Your task to perform on an android device: turn off notifications in google photos Image 0: 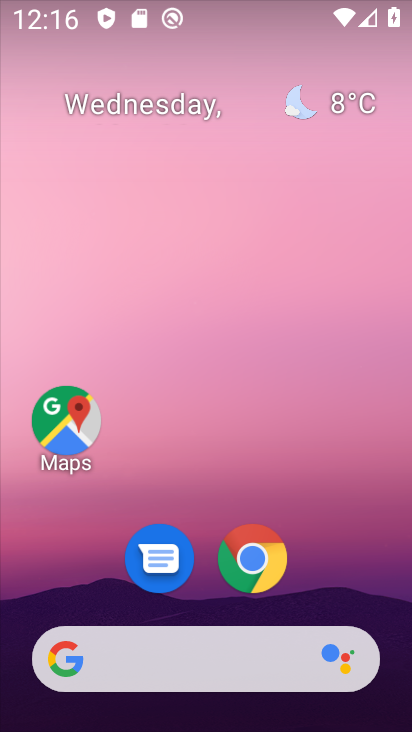
Step 0: drag from (335, 576) to (244, 6)
Your task to perform on an android device: turn off notifications in google photos Image 1: 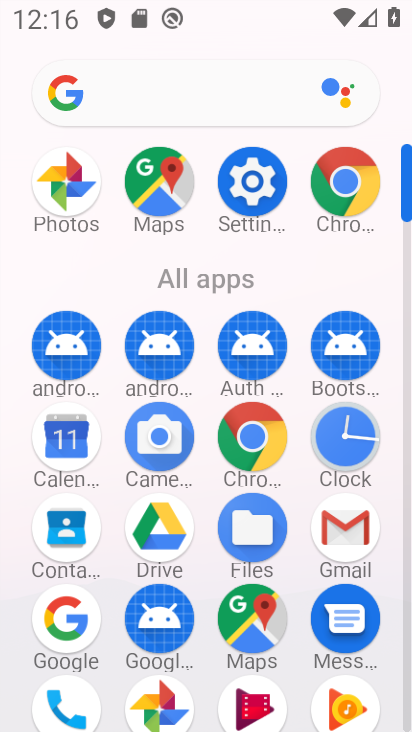
Step 1: drag from (7, 536) to (13, 207)
Your task to perform on an android device: turn off notifications in google photos Image 2: 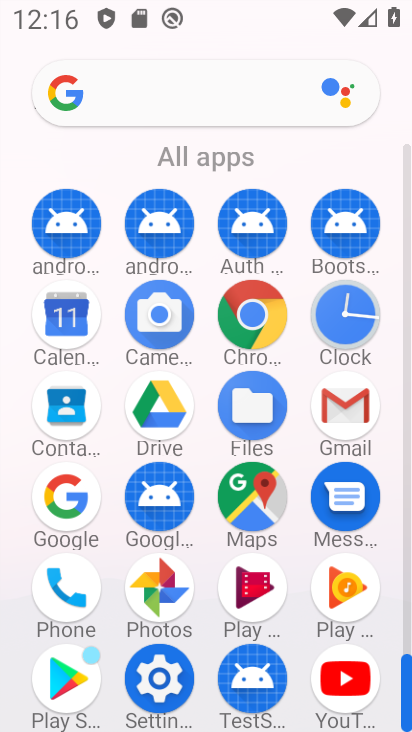
Step 2: click (157, 585)
Your task to perform on an android device: turn off notifications in google photos Image 3: 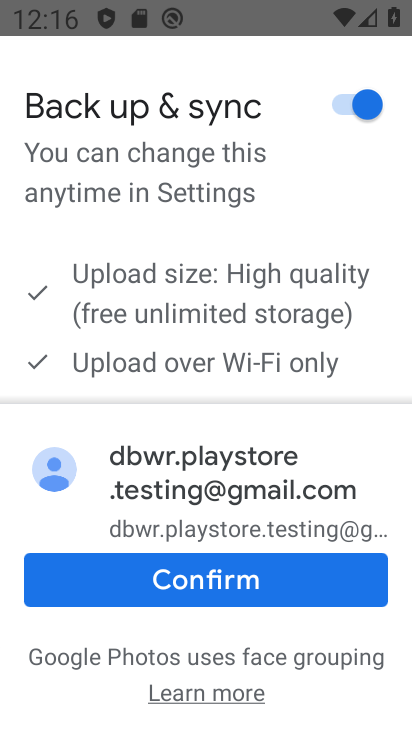
Step 3: click (214, 590)
Your task to perform on an android device: turn off notifications in google photos Image 4: 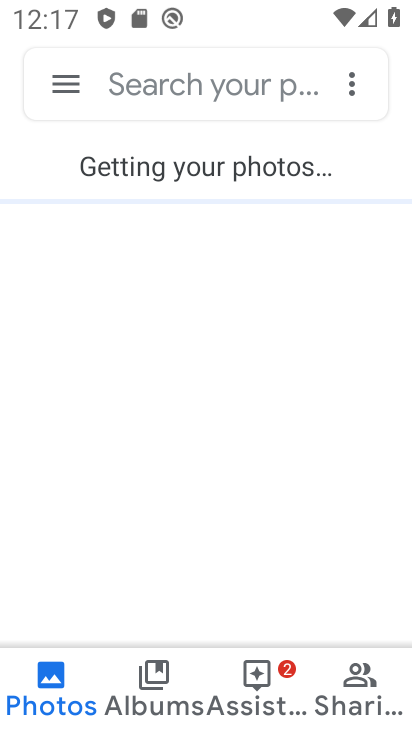
Step 4: click (46, 68)
Your task to perform on an android device: turn off notifications in google photos Image 5: 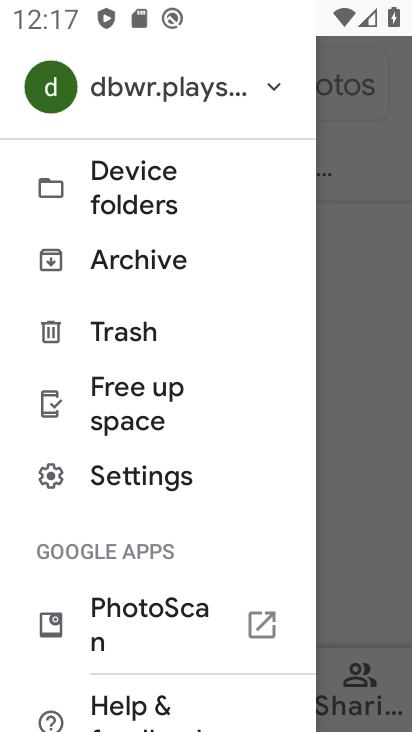
Step 5: click (146, 476)
Your task to perform on an android device: turn off notifications in google photos Image 6: 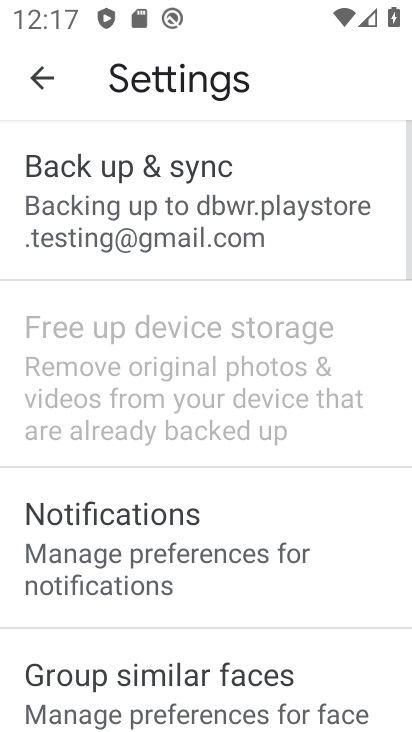
Step 6: click (215, 555)
Your task to perform on an android device: turn off notifications in google photos Image 7: 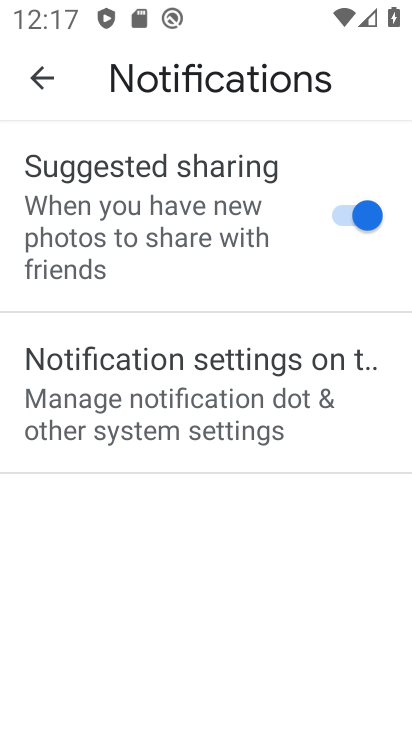
Step 7: click (234, 427)
Your task to perform on an android device: turn off notifications in google photos Image 8: 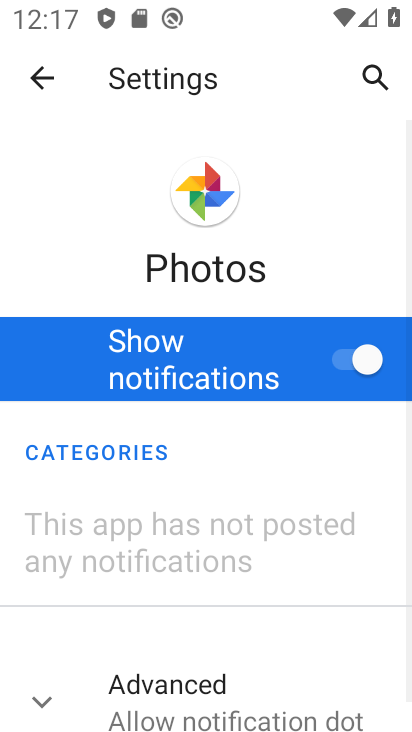
Step 8: drag from (208, 587) to (247, 115)
Your task to perform on an android device: turn off notifications in google photos Image 9: 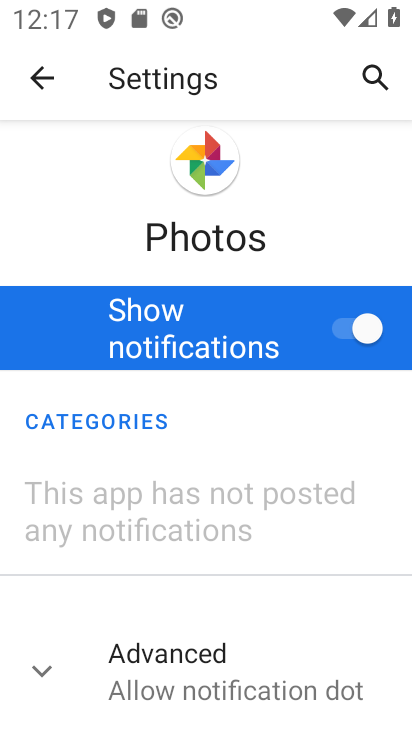
Step 9: click (162, 665)
Your task to perform on an android device: turn off notifications in google photos Image 10: 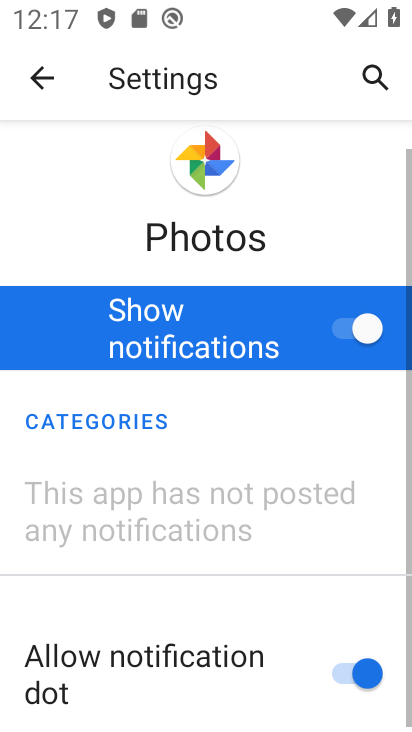
Step 10: drag from (185, 600) to (239, 127)
Your task to perform on an android device: turn off notifications in google photos Image 11: 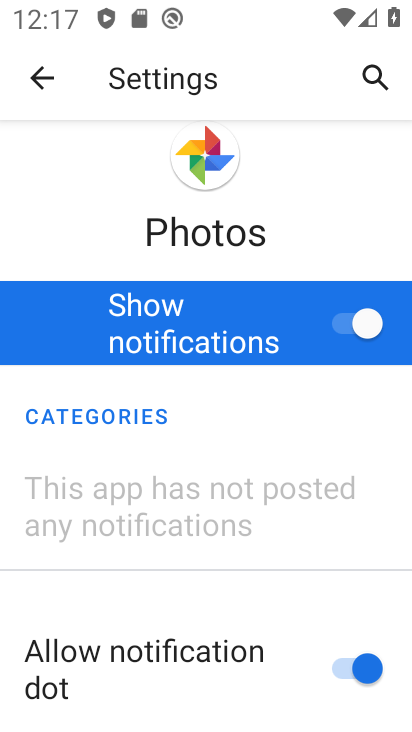
Step 11: click (364, 331)
Your task to perform on an android device: turn off notifications in google photos Image 12: 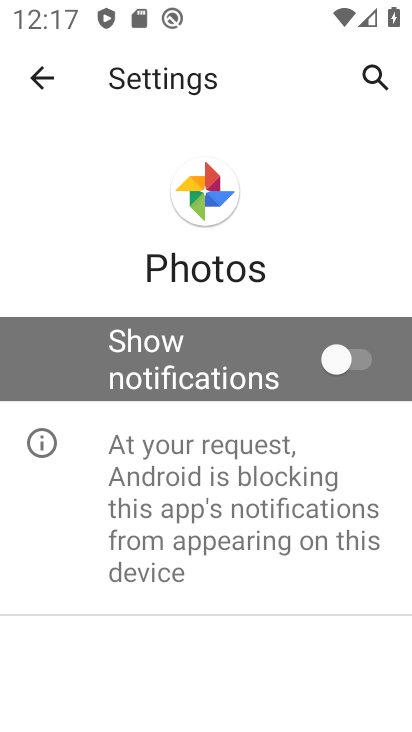
Step 12: task complete